Your task to perform on an android device: Clear the shopping cart on ebay.com. Image 0: 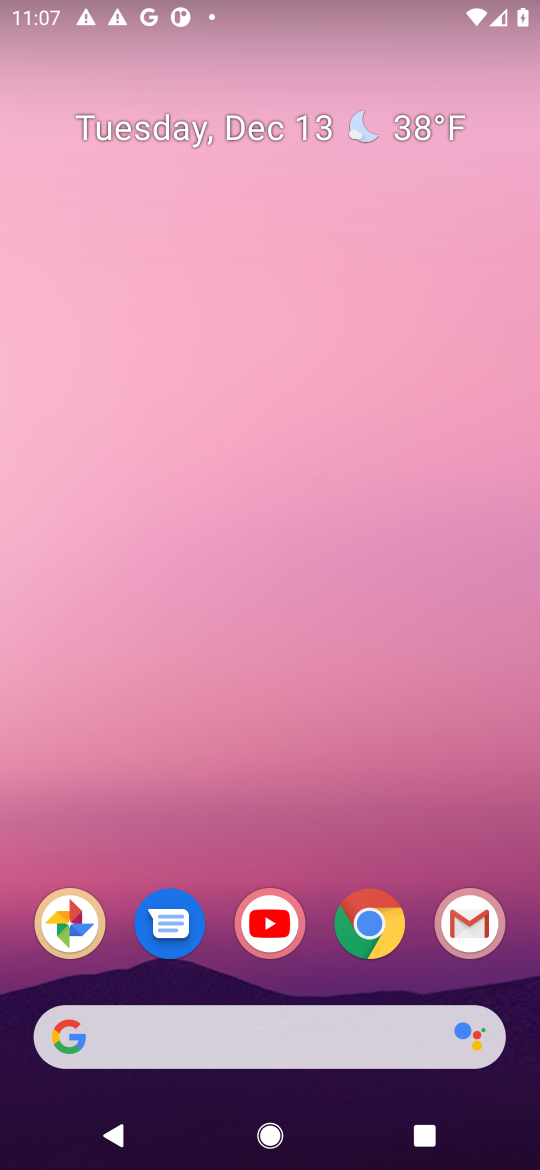
Step 0: click (328, 1073)
Your task to perform on an android device: Clear the shopping cart on ebay.com. Image 1: 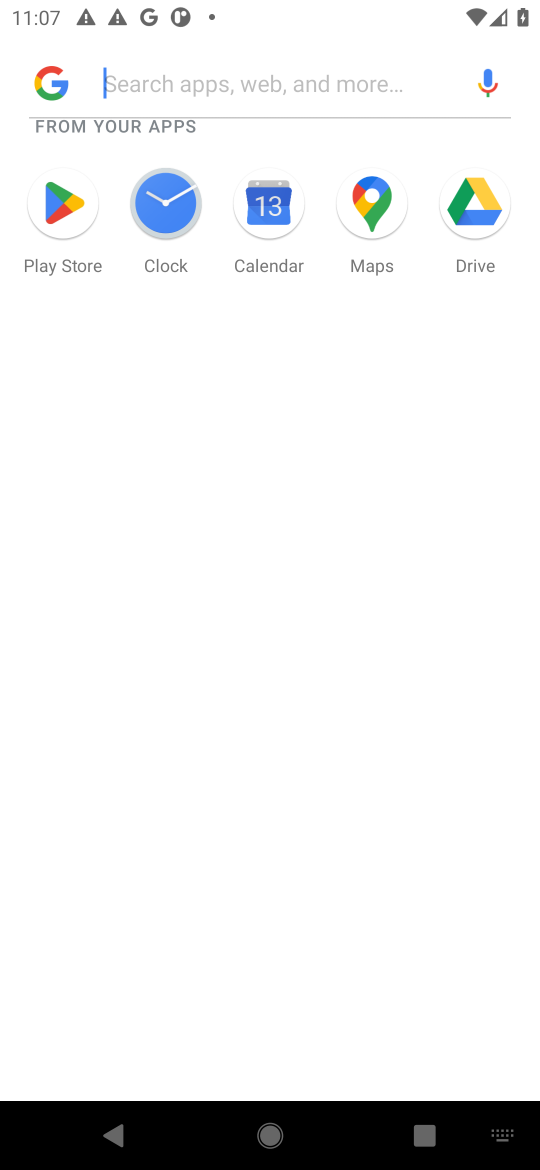
Step 1: press home button
Your task to perform on an android device: Clear the shopping cart on ebay.com. Image 2: 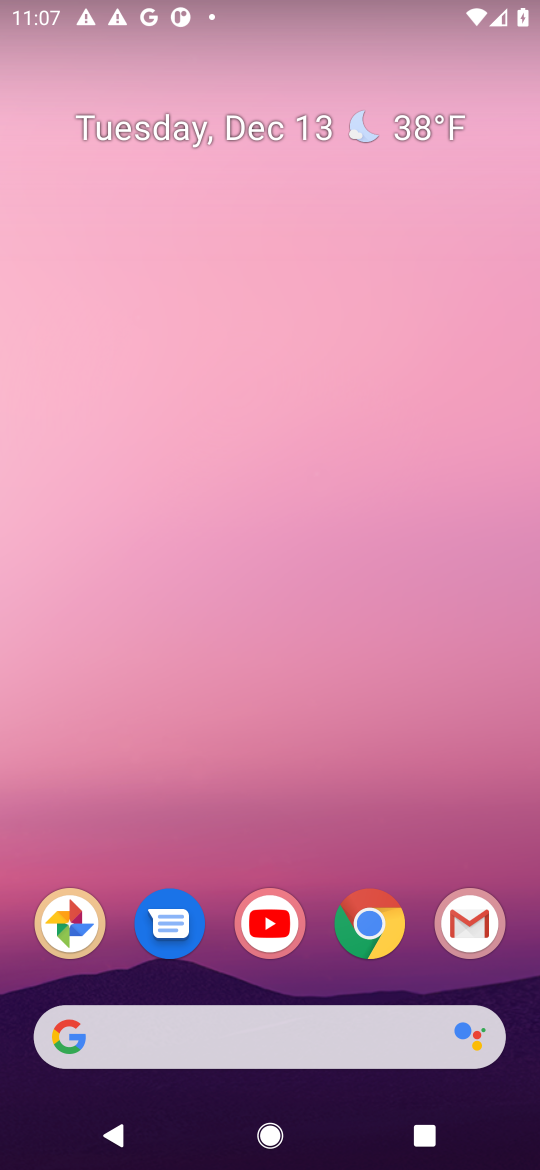
Step 2: click (351, 941)
Your task to perform on an android device: Clear the shopping cart on ebay.com. Image 3: 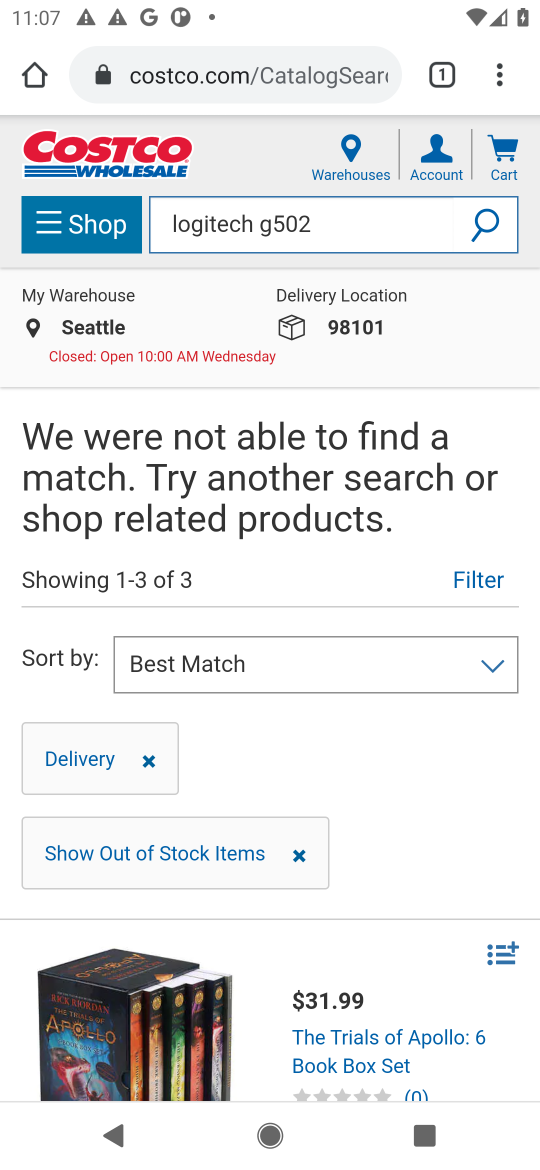
Step 3: click (301, 84)
Your task to perform on an android device: Clear the shopping cart on ebay.com. Image 4: 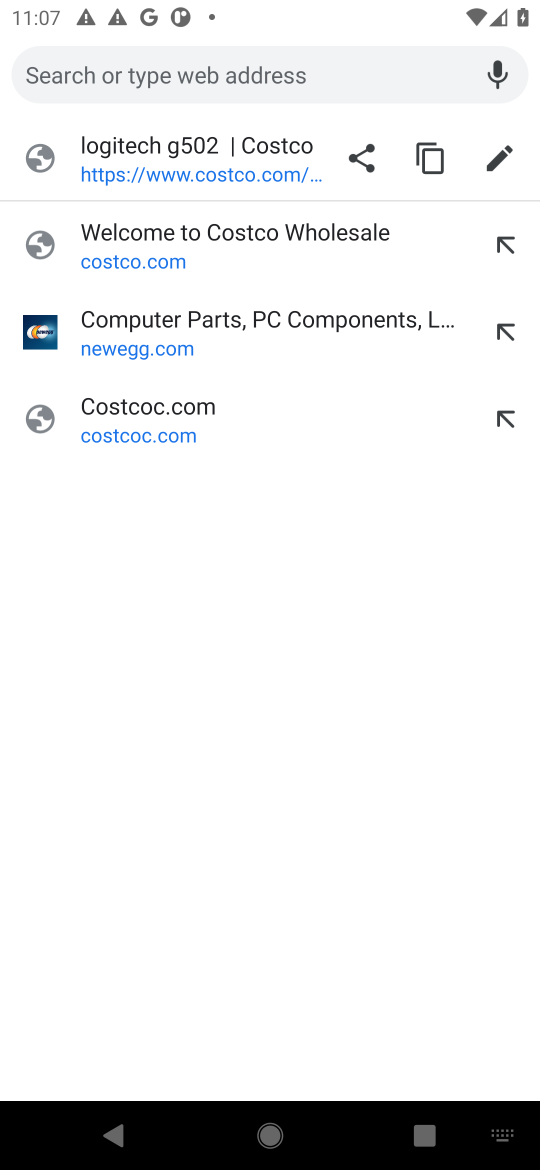
Step 4: type "ebay.com"
Your task to perform on an android device: Clear the shopping cart on ebay.com. Image 5: 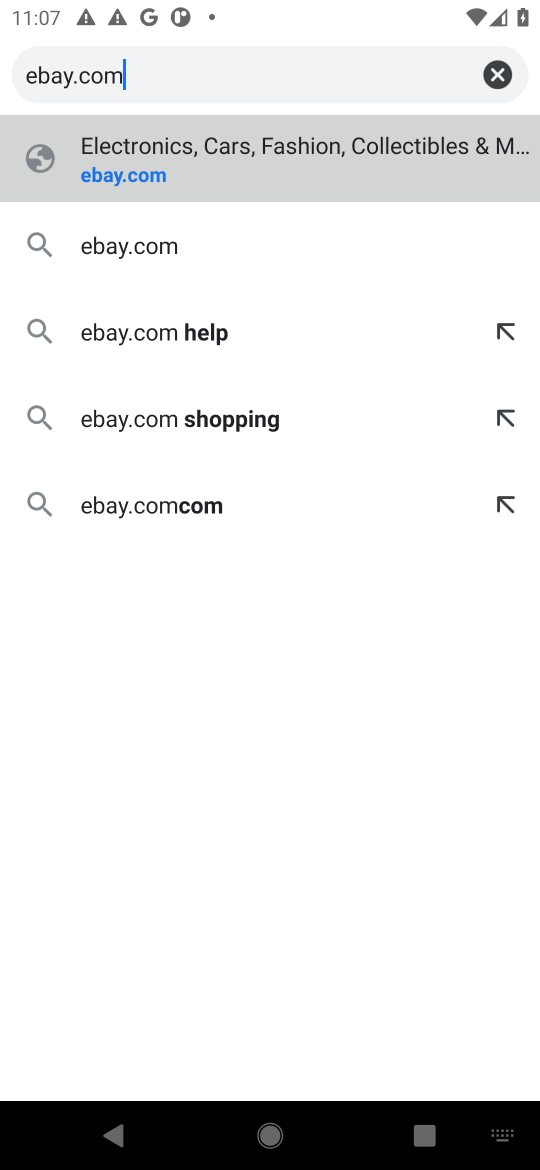
Step 5: click (240, 167)
Your task to perform on an android device: Clear the shopping cart on ebay.com. Image 6: 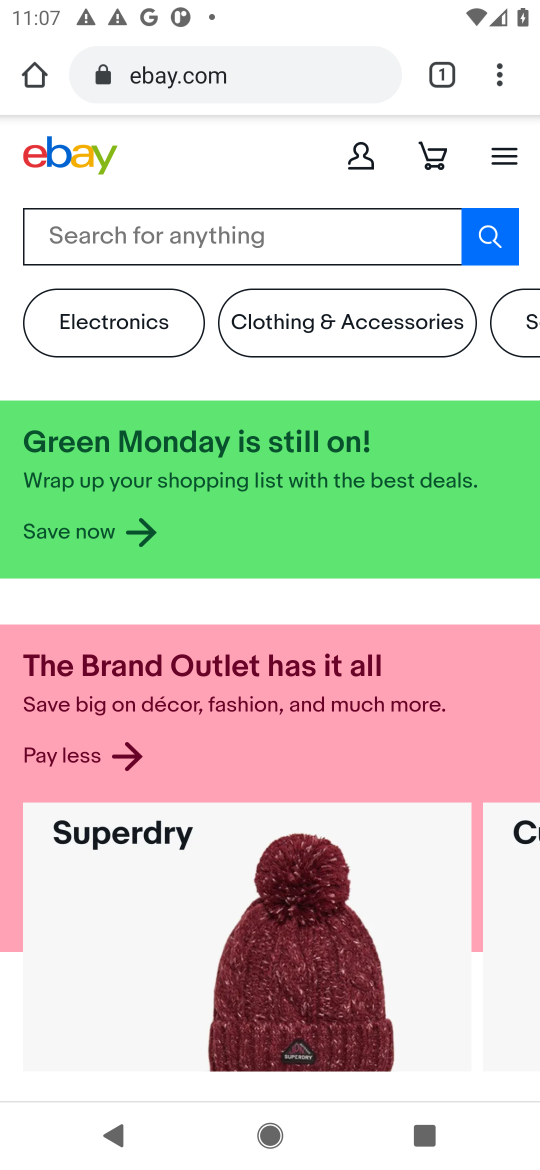
Step 6: click (194, 249)
Your task to perform on an android device: Clear the shopping cart on ebay.com. Image 7: 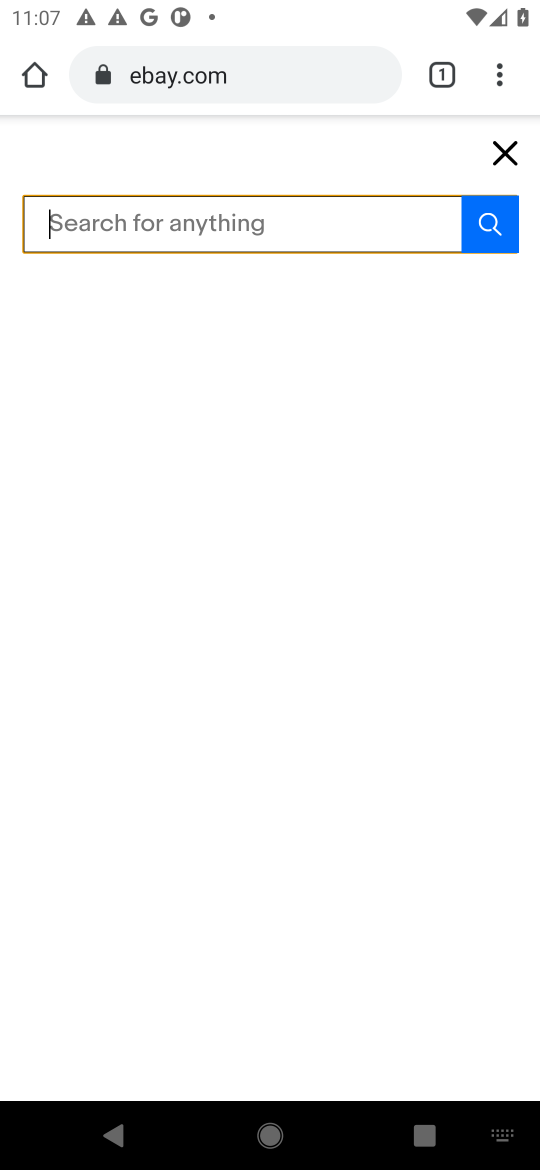
Step 7: click (519, 161)
Your task to perform on an android device: Clear the shopping cart on ebay.com. Image 8: 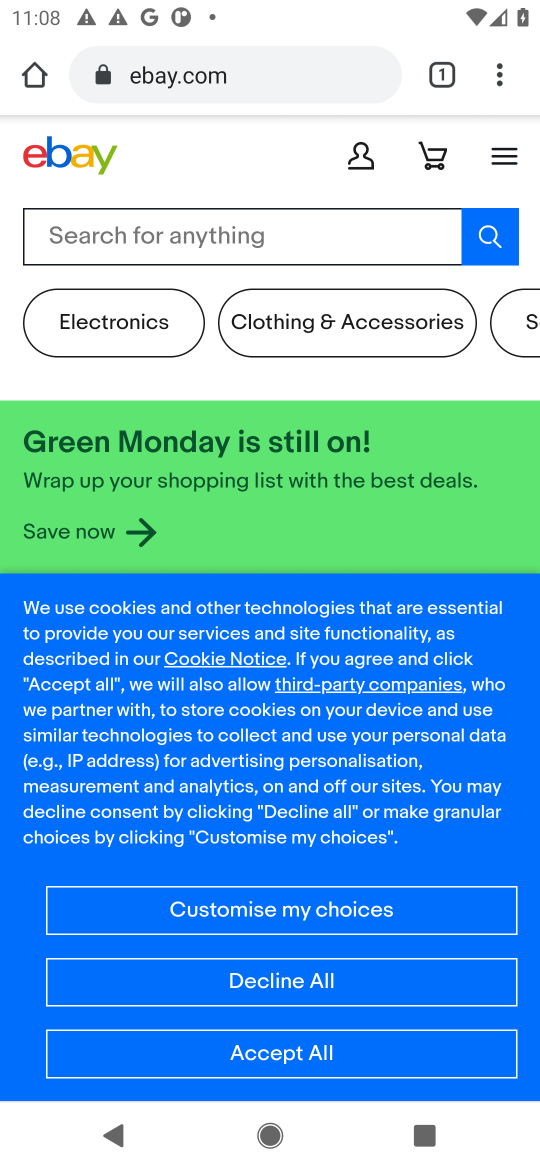
Step 8: click (310, 220)
Your task to perform on an android device: Clear the shopping cart on ebay.com. Image 9: 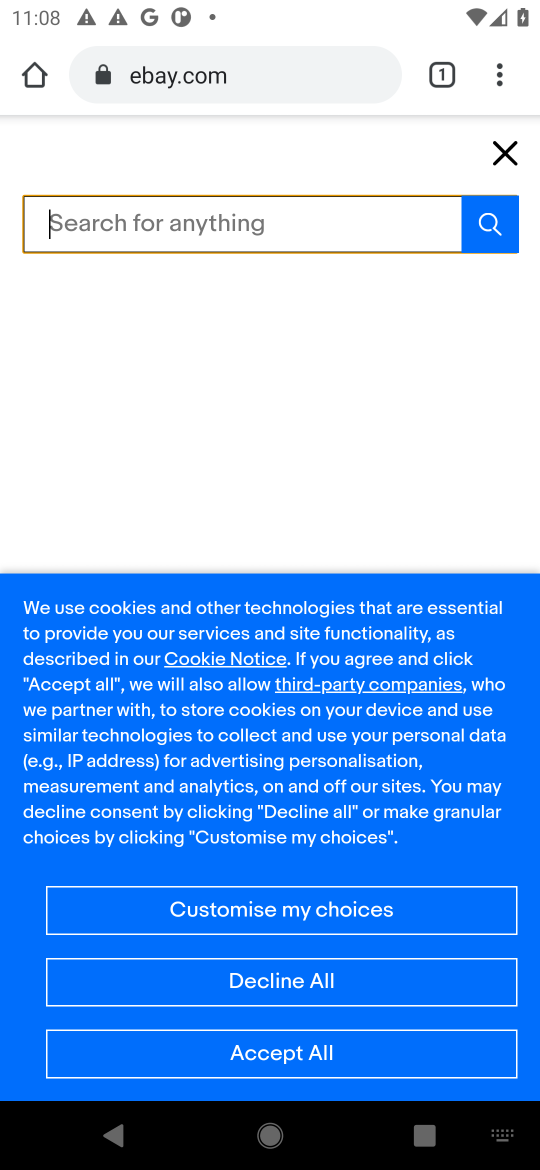
Step 9: click (501, 153)
Your task to perform on an android device: Clear the shopping cart on ebay.com. Image 10: 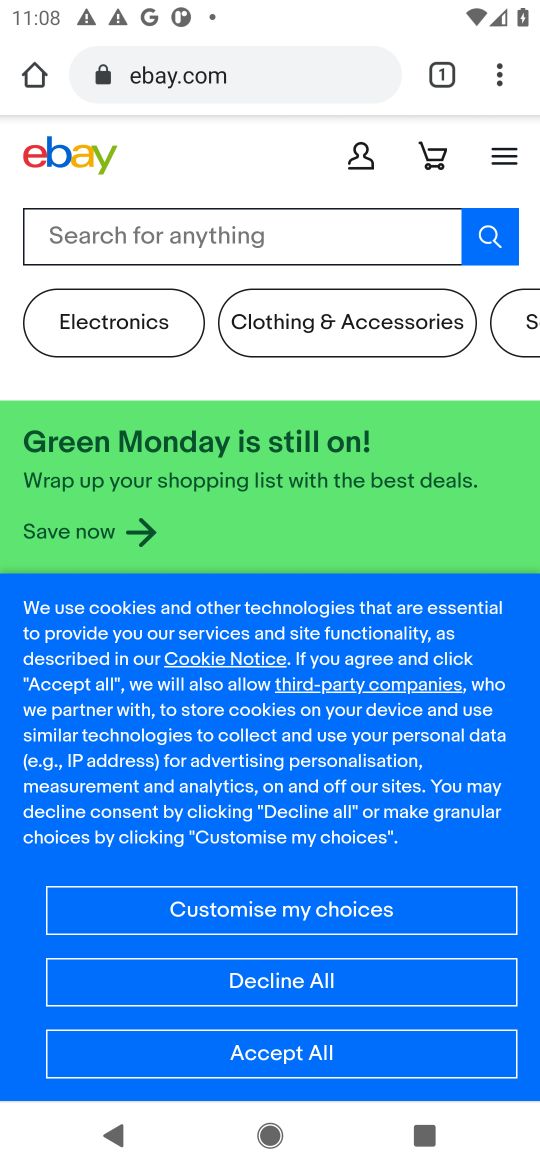
Step 10: click (434, 162)
Your task to perform on an android device: Clear the shopping cart on ebay.com. Image 11: 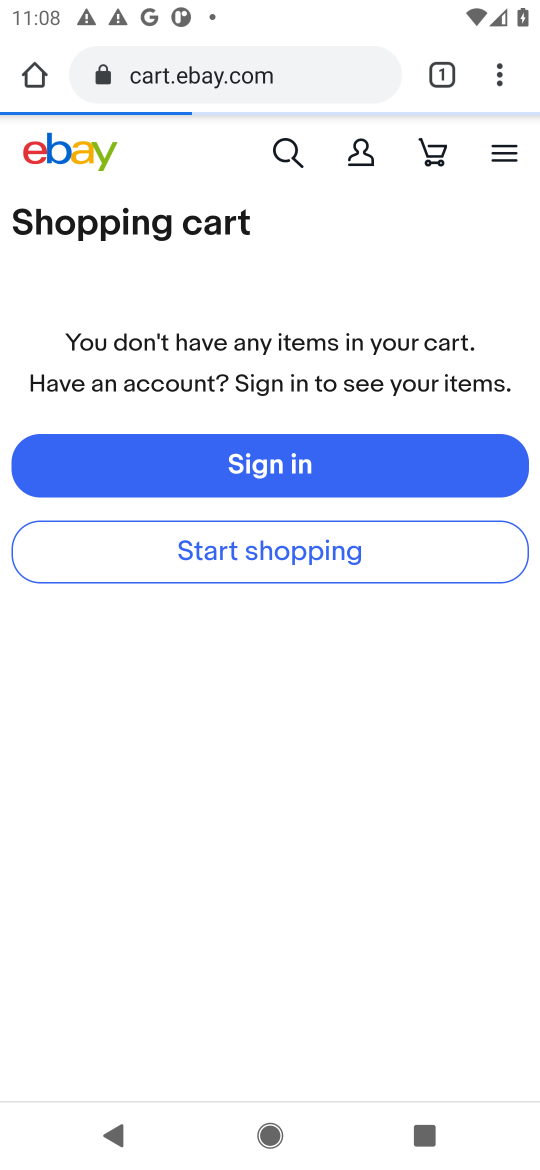
Step 11: task complete